Your task to perform on an android device: open chrome privacy settings Image 0: 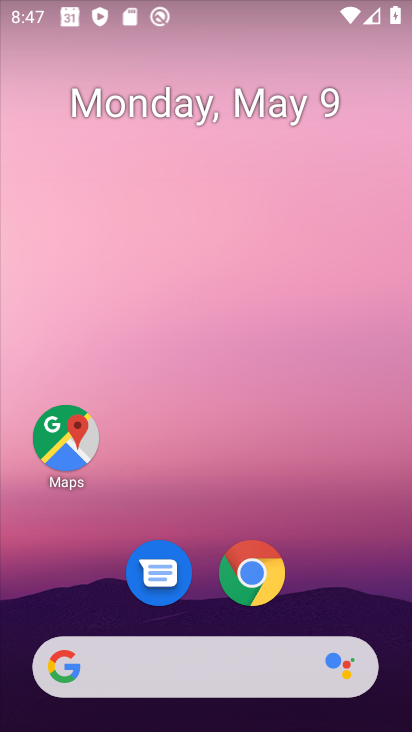
Step 0: click (258, 568)
Your task to perform on an android device: open chrome privacy settings Image 1: 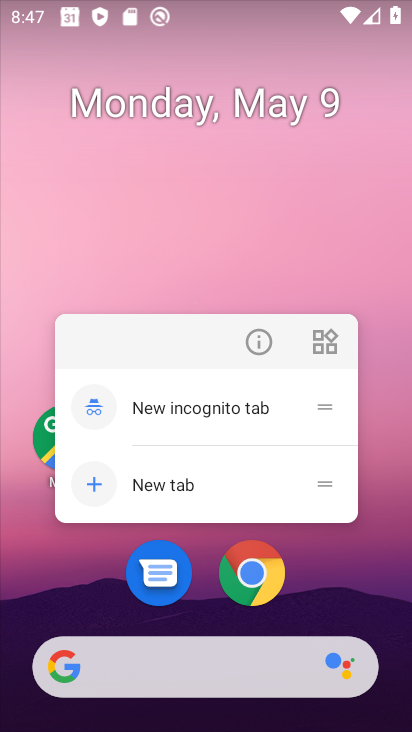
Step 1: click (258, 568)
Your task to perform on an android device: open chrome privacy settings Image 2: 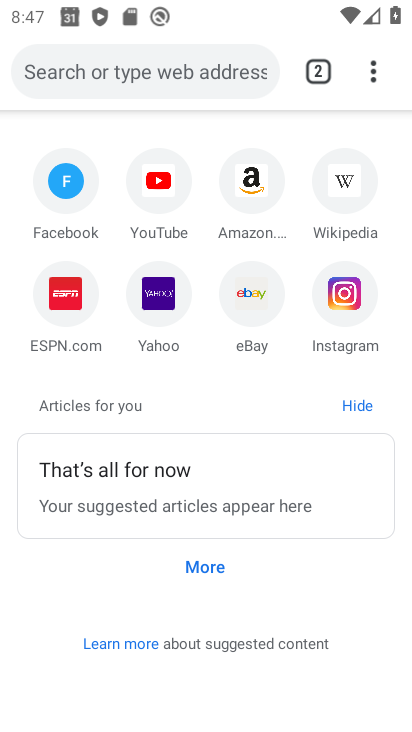
Step 2: click (370, 77)
Your task to perform on an android device: open chrome privacy settings Image 3: 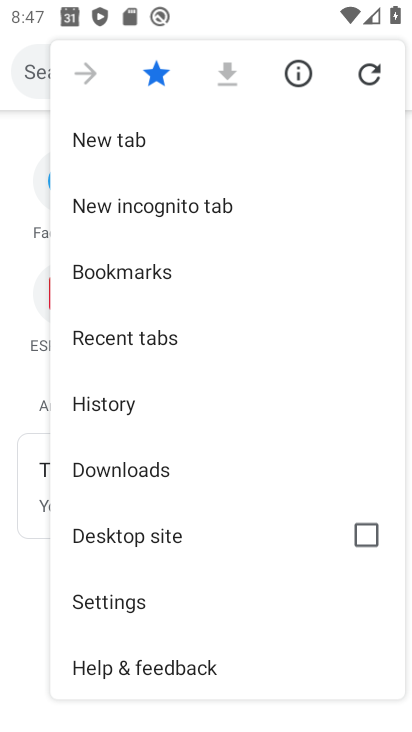
Step 3: click (178, 603)
Your task to perform on an android device: open chrome privacy settings Image 4: 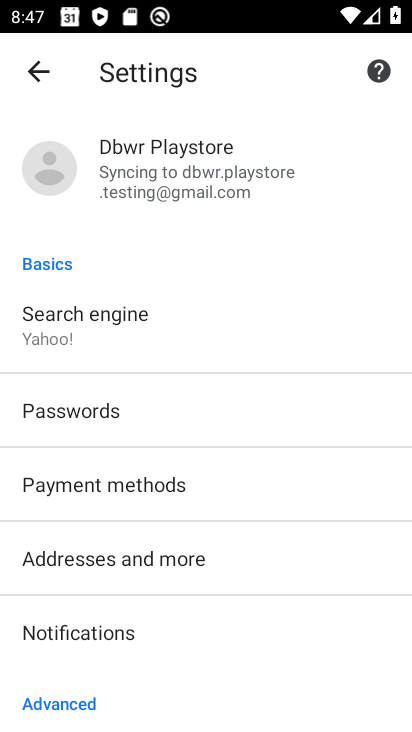
Step 4: drag from (187, 638) to (208, 516)
Your task to perform on an android device: open chrome privacy settings Image 5: 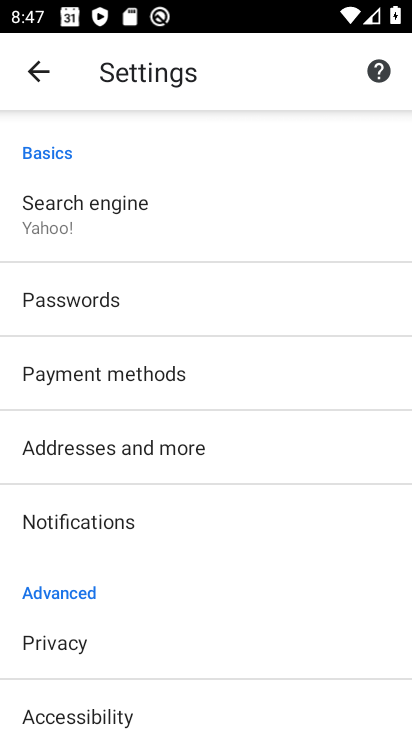
Step 5: click (153, 642)
Your task to perform on an android device: open chrome privacy settings Image 6: 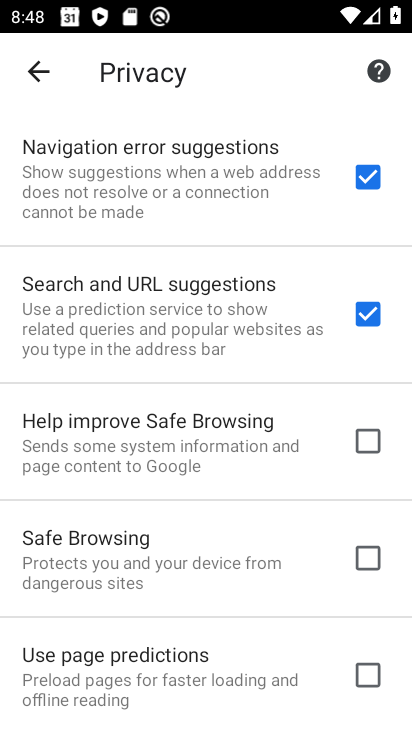
Step 6: task complete